Your task to perform on an android device: open app "Google Calendar" (install if not already installed) Image 0: 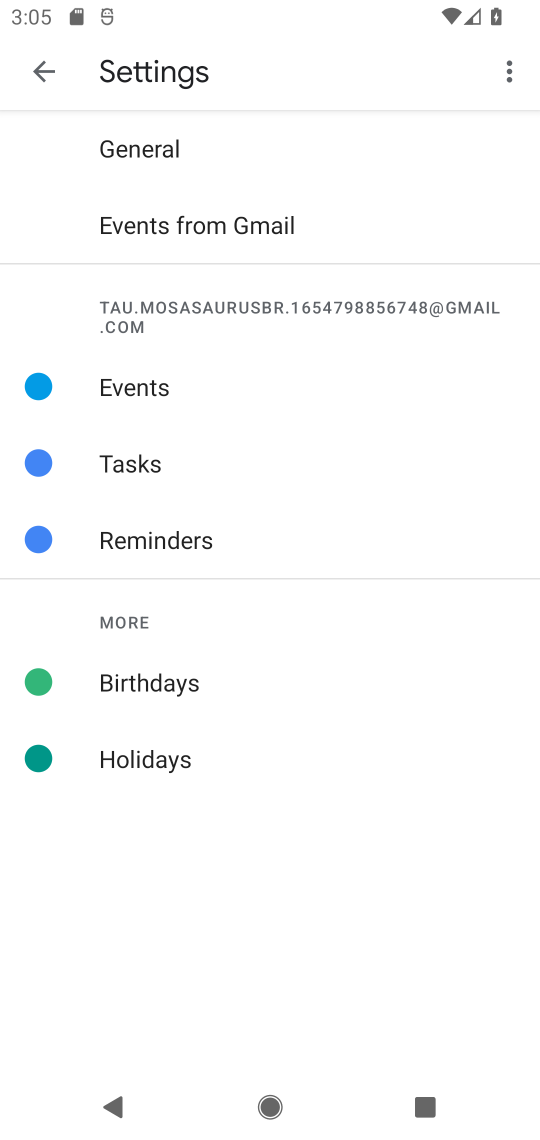
Step 0: press home button
Your task to perform on an android device: open app "Google Calendar" (install if not already installed) Image 1: 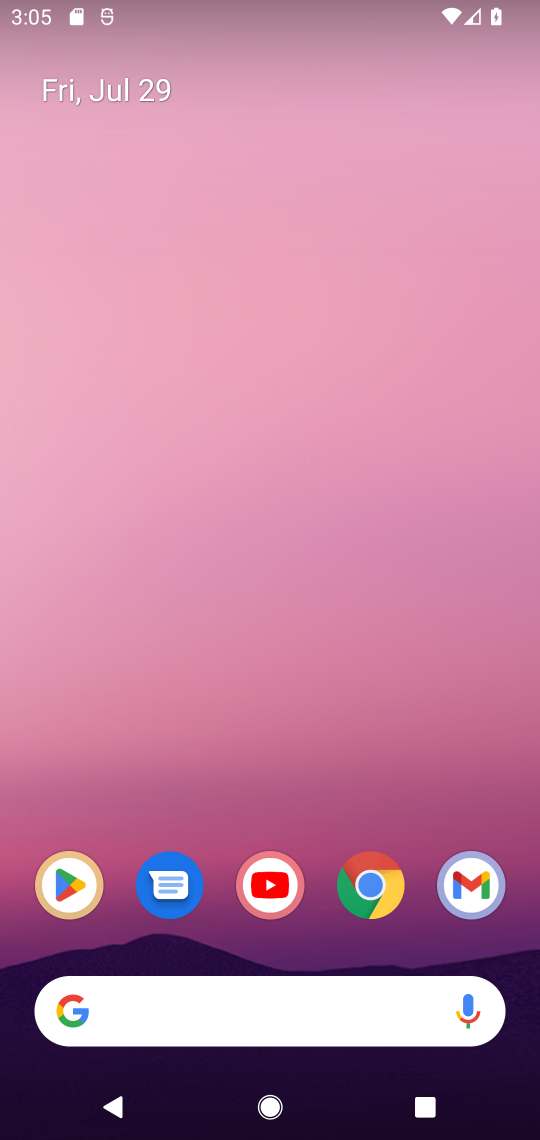
Step 1: click (83, 885)
Your task to perform on an android device: open app "Google Calendar" (install if not already installed) Image 2: 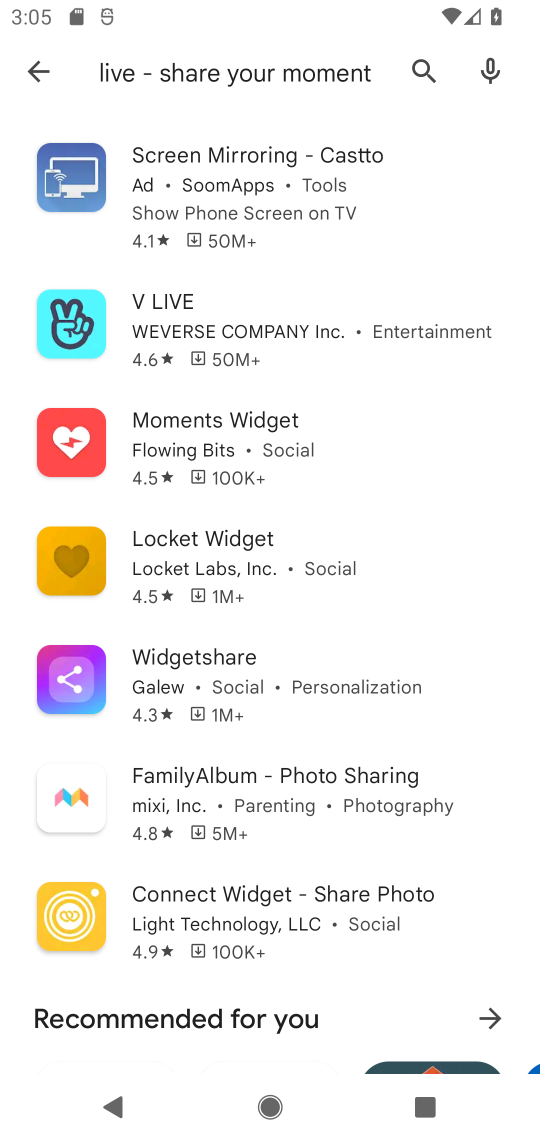
Step 2: click (418, 70)
Your task to perform on an android device: open app "Google Calendar" (install if not already installed) Image 3: 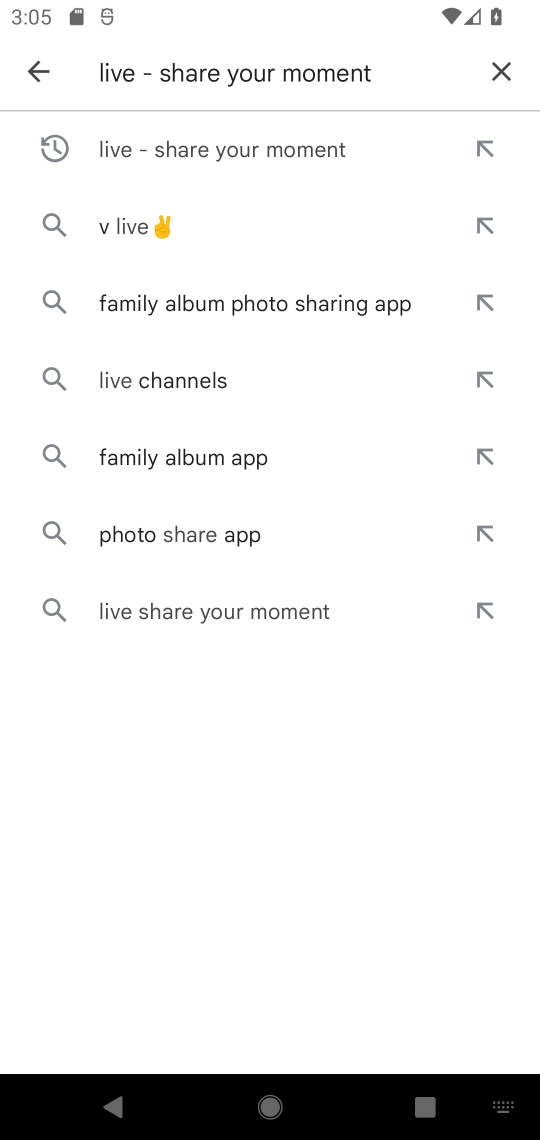
Step 3: click (504, 68)
Your task to perform on an android device: open app "Google Calendar" (install if not already installed) Image 4: 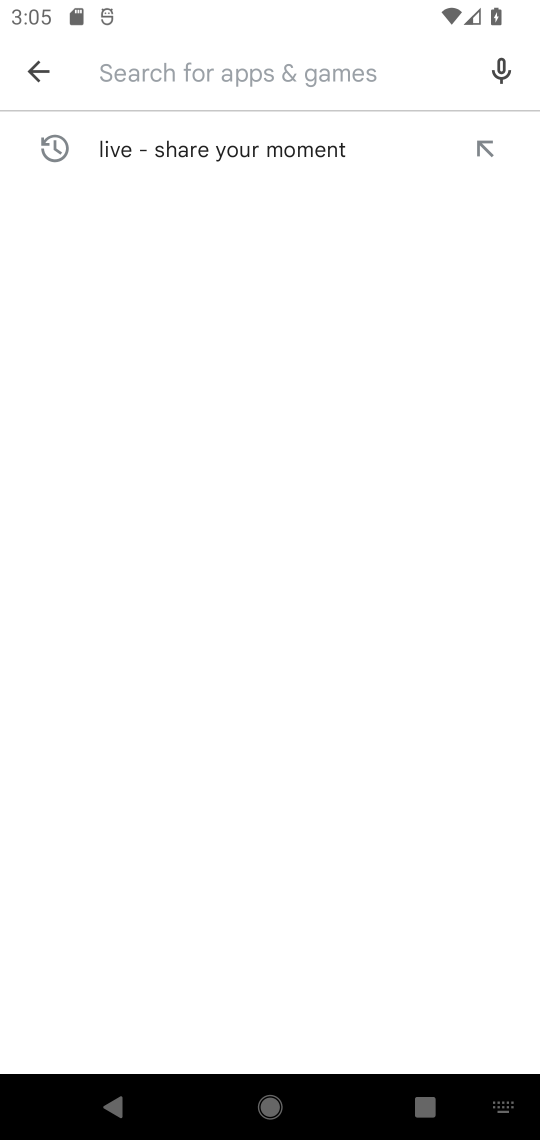
Step 4: click (374, 79)
Your task to perform on an android device: open app "Google Calendar" (install if not already installed) Image 5: 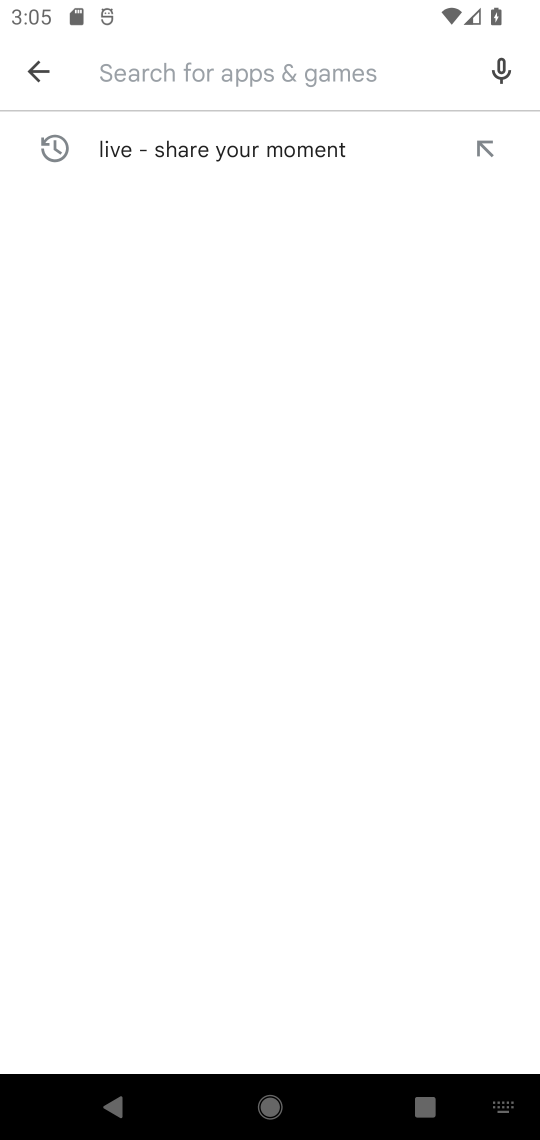
Step 5: type "Google Calendar"
Your task to perform on an android device: open app "Google Calendar" (install if not already installed) Image 6: 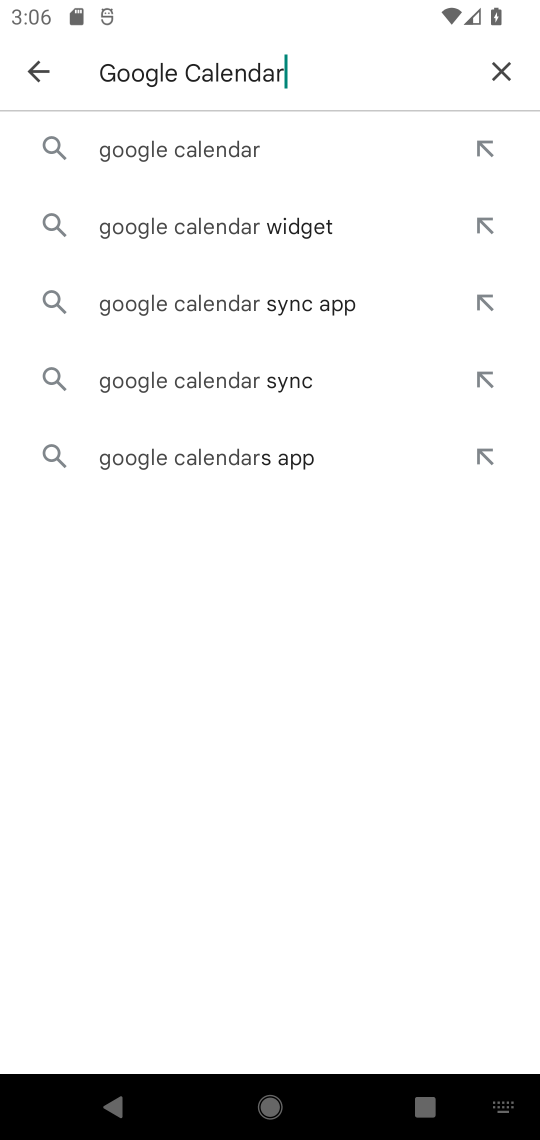
Step 6: click (93, 150)
Your task to perform on an android device: open app "Google Calendar" (install if not already installed) Image 7: 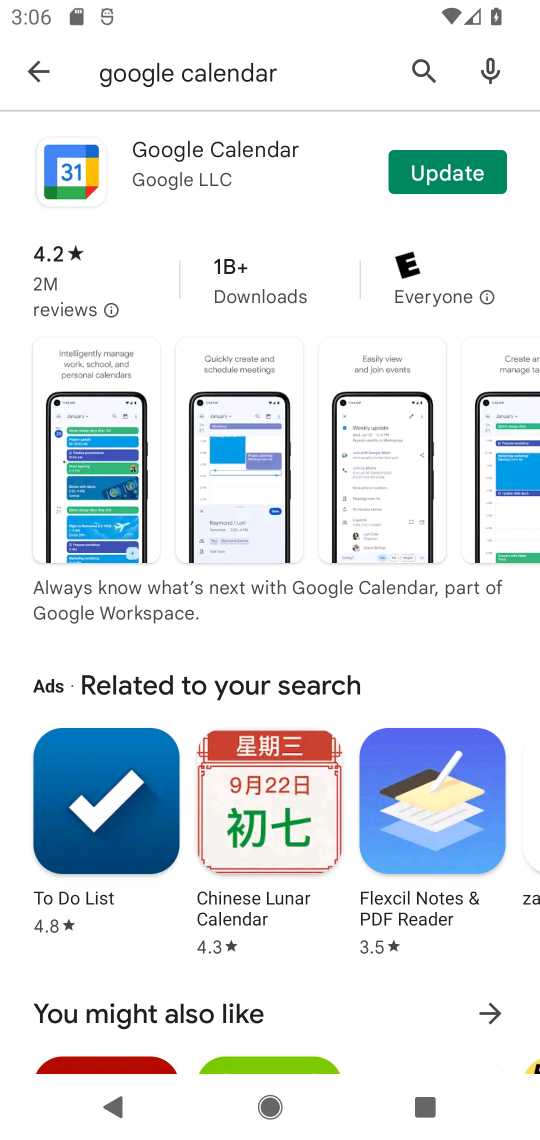
Step 7: click (418, 175)
Your task to perform on an android device: open app "Google Calendar" (install if not already installed) Image 8: 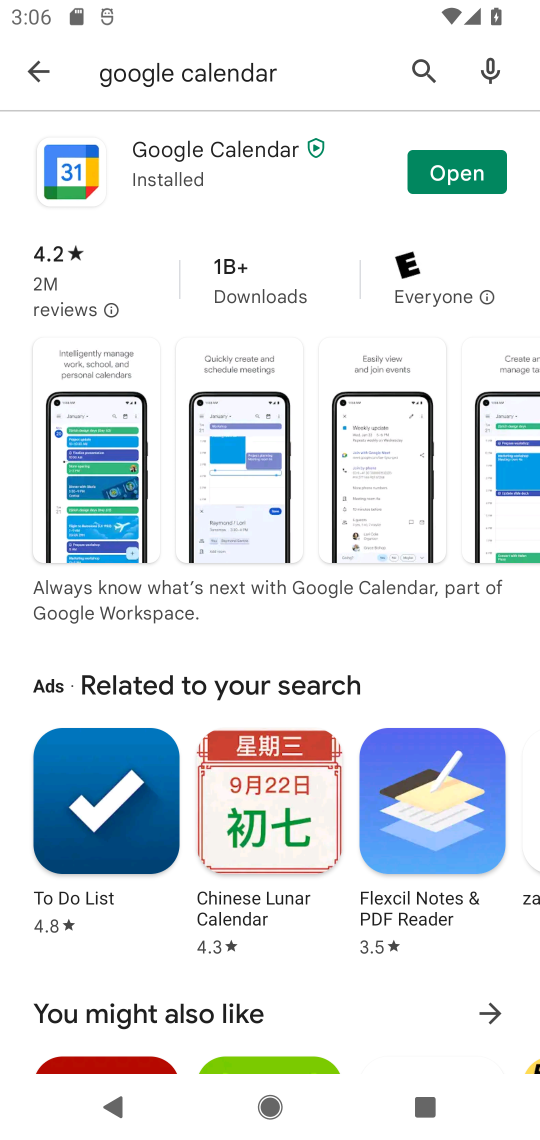
Step 8: click (418, 175)
Your task to perform on an android device: open app "Google Calendar" (install if not already installed) Image 9: 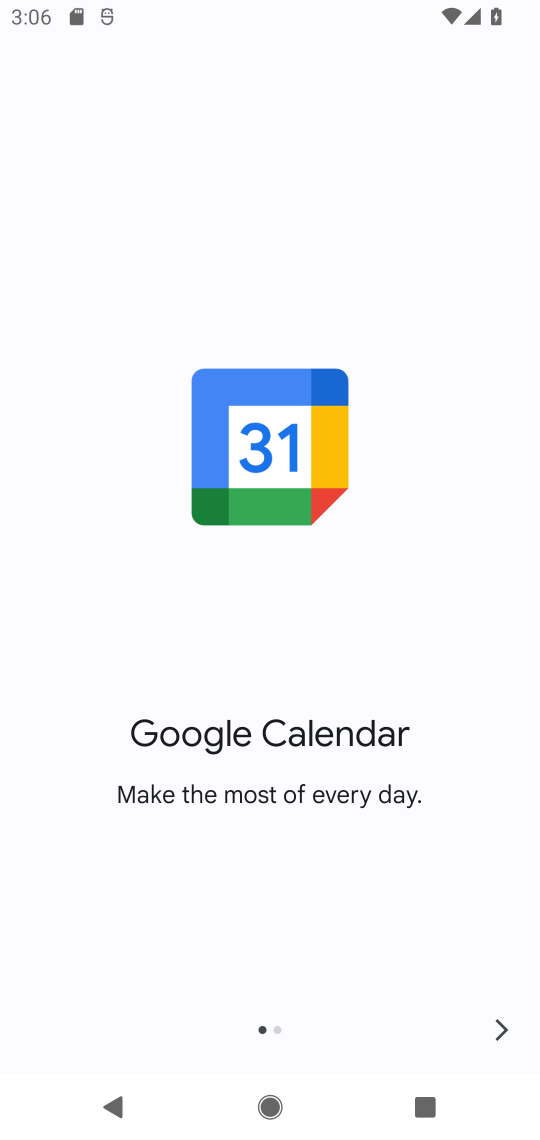
Step 9: click (492, 1041)
Your task to perform on an android device: open app "Google Calendar" (install if not already installed) Image 10: 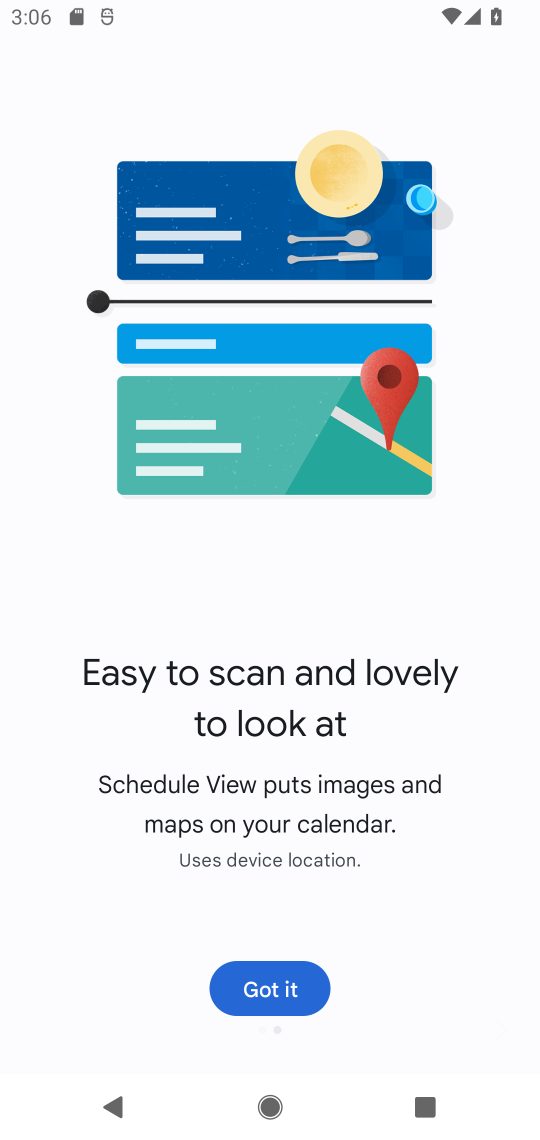
Step 10: click (492, 1041)
Your task to perform on an android device: open app "Google Calendar" (install if not already installed) Image 11: 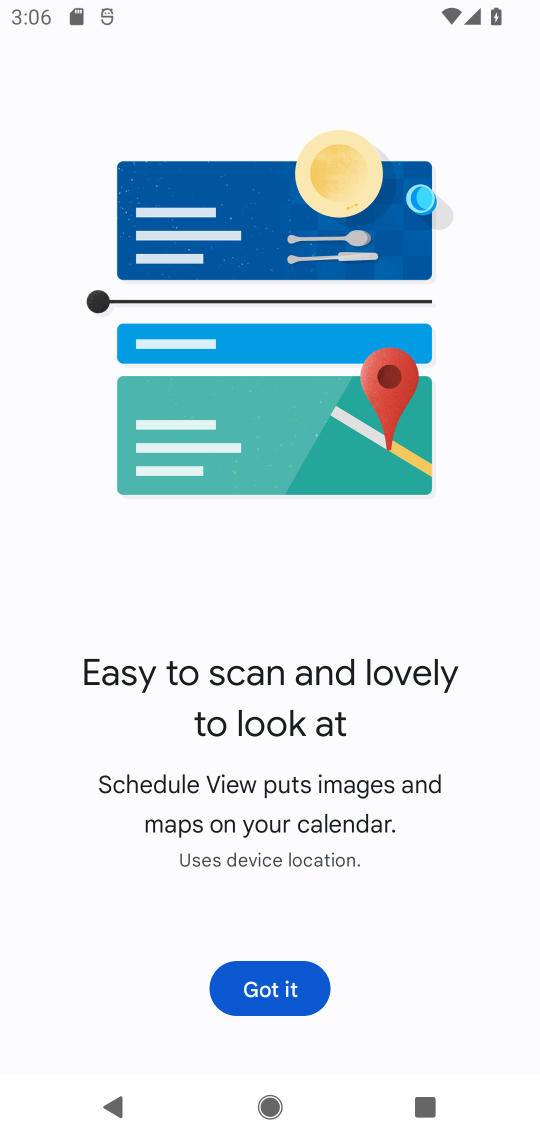
Step 11: click (296, 982)
Your task to perform on an android device: open app "Google Calendar" (install if not already installed) Image 12: 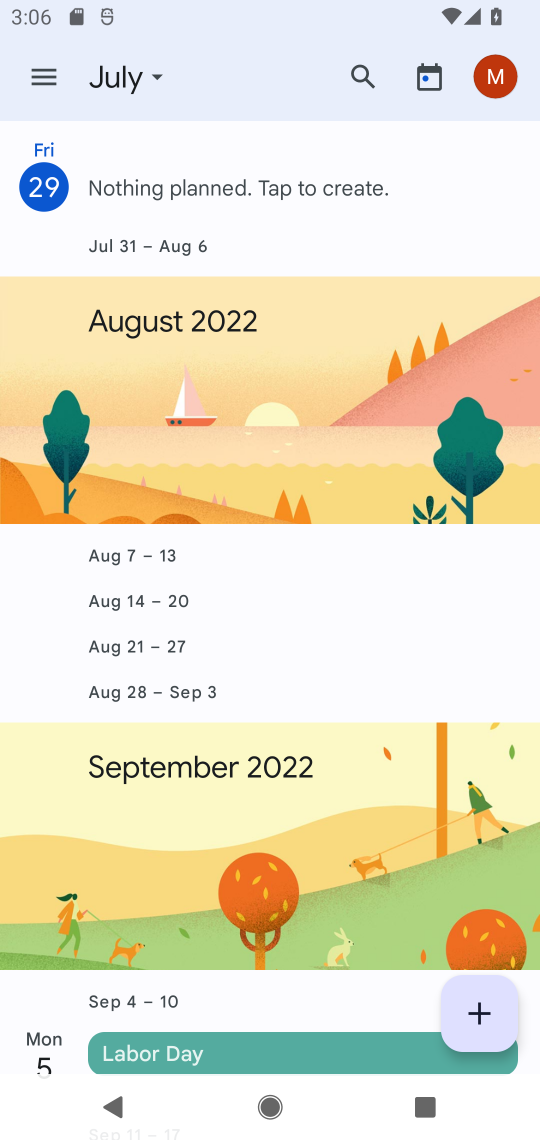
Step 12: task complete